Your task to perform on an android device: all mails in gmail Image 0: 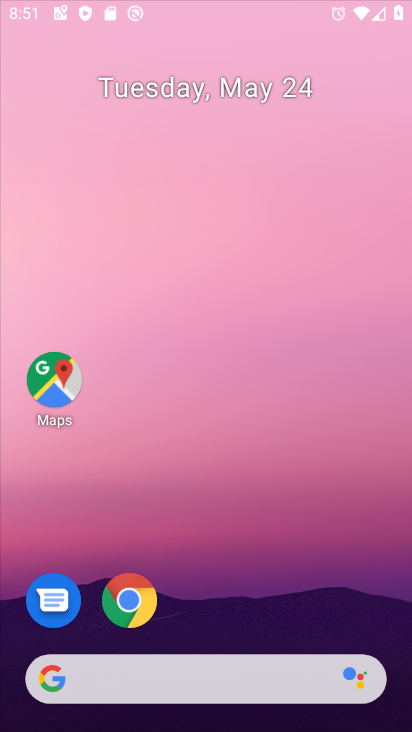
Step 0: click (313, 555)
Your task to perform on an android device: all mails in gmail Image 1: 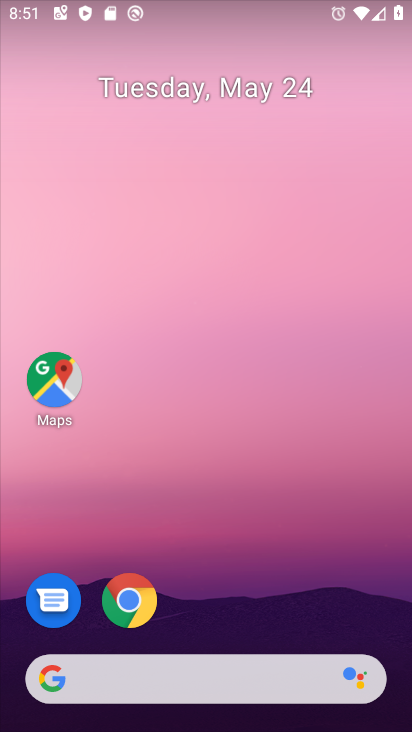
Step 1: drag from (193, 718) to (198, 201)
Your task to perform on an android device: all mails in gmail Image 2: 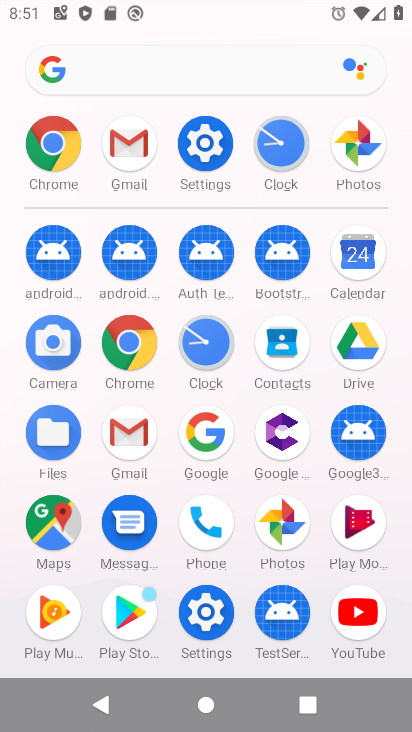
Step 2: click (136, 432)
Your task to perform on an android device: all mails in gmail Image 3: 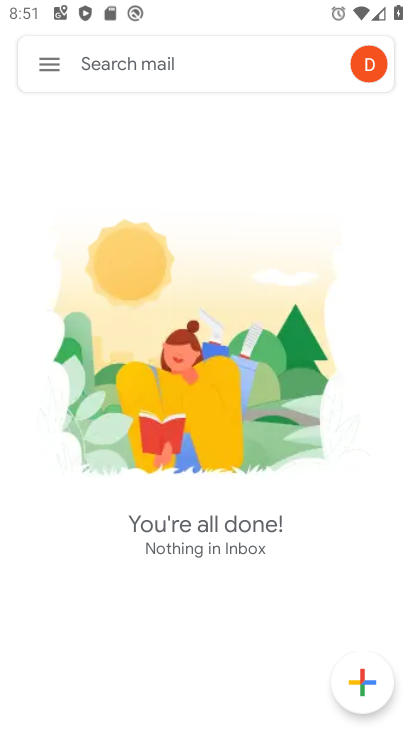
Step 3: click (51, 65)
Your task to perform on an android device: all mails in gmail Image 4: 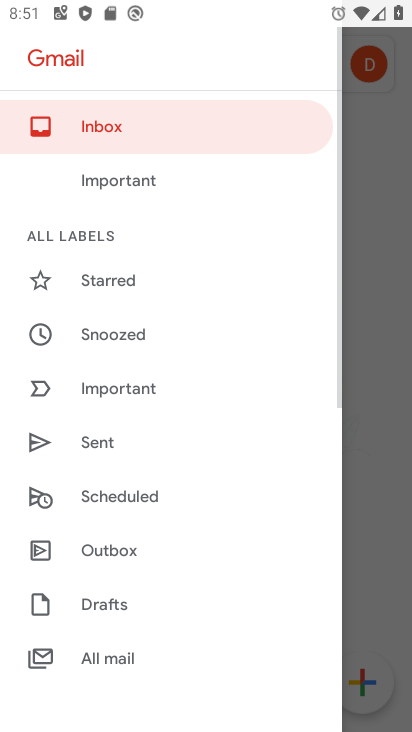
Step 4: drag from (111, 647) to (108, 454)
Your task to perform on an android device: all mails in gmail Image 5: 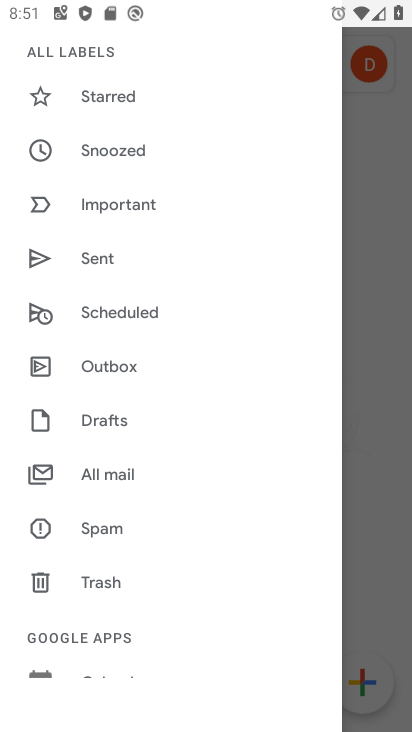
Step 5: click (126, 473)
Your task to perform on an android device: all mails in gmail Image 6: 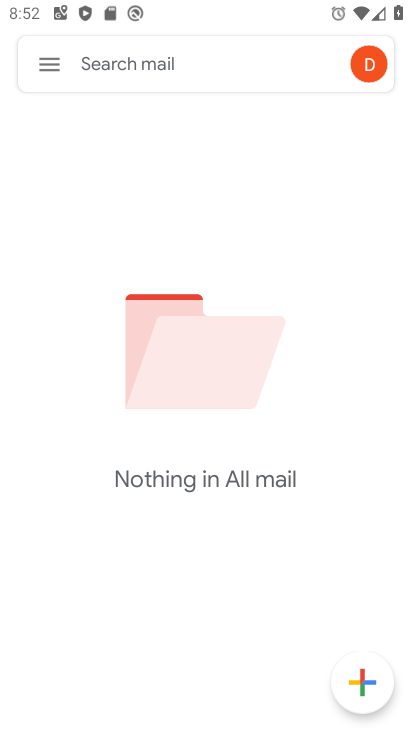
Step 6: task complete